Your task to perform on an android device: open chrome and create a bookmark for the current page Image 0: 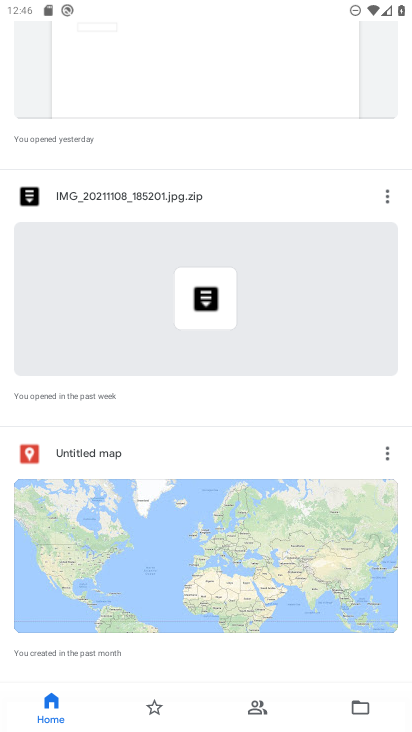
Step 0: drag from (176, 619) to (237, 232)
Your task to perform on an android device: open chrome and create a bookmark for the current page Image 1: 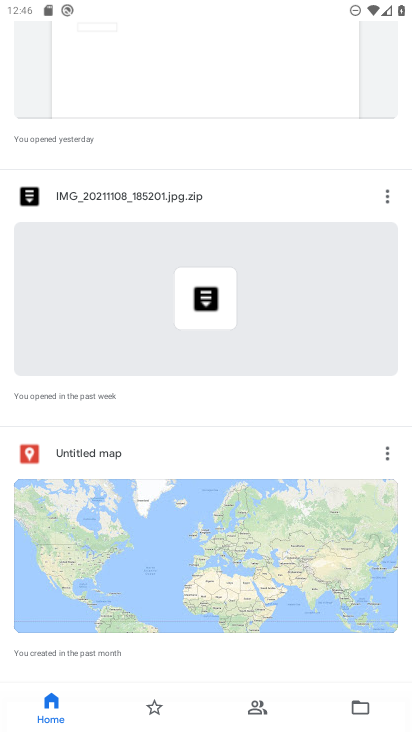
Step 1: drag from (262, 558) to (329, 196)
Your task to perform on an android device: open chrome and create a bookmark for the current page Image 2: 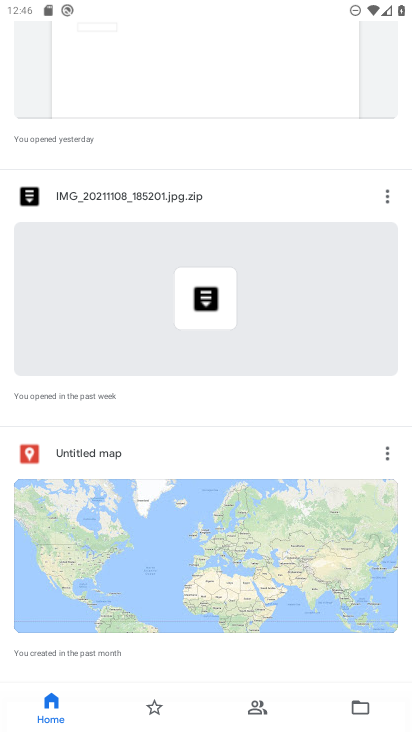
Step 2: press home button
Your task to perform on an android device: open chrome and create a bookmark for the current page Image 3: 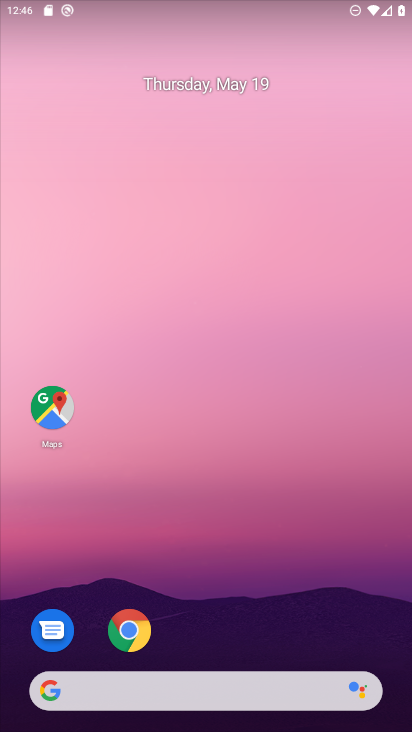
Step 3: click (119, 638)
Your task to perform on an android device: open chrome and create a bookmark for the current page Image 4: 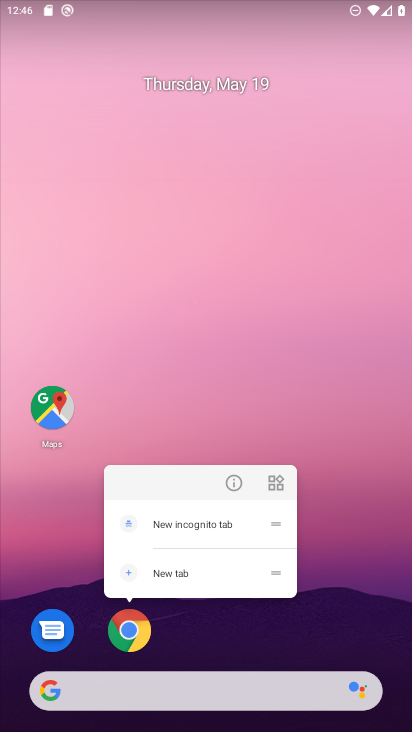
Step 4: click (221, 487)
Your task to perform on an android device: open chrome and create a bookmark for the current page Image 5: 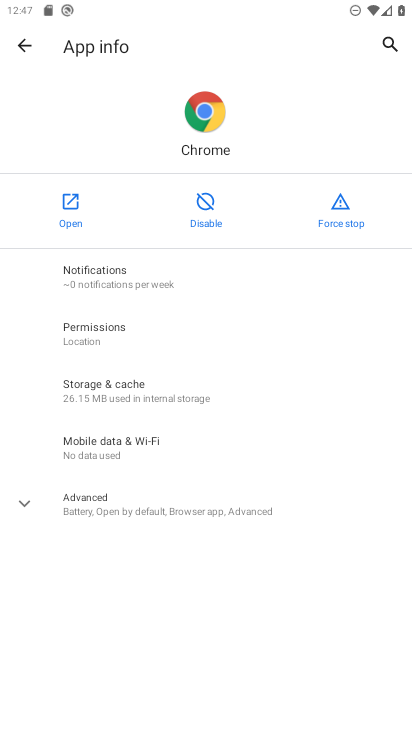
Step 5: click (77, 219)
Your task to perform on an android device: open chrome and create a bookmark for the current page Image 6: 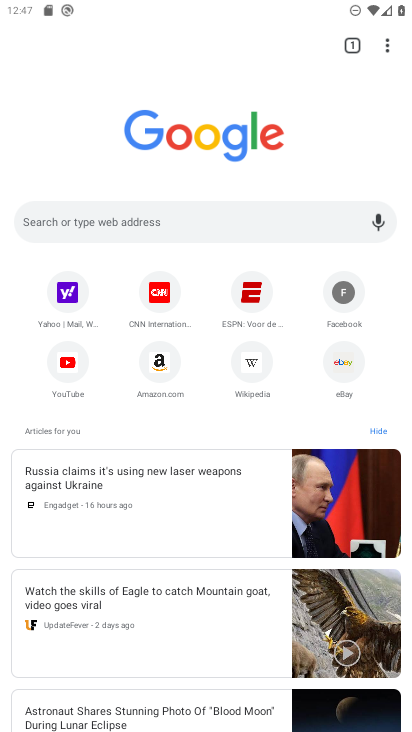
Step 6: click (376, 51)
Your task to perform on an android device: open chrome and create a bookmark for the current page Image 7: 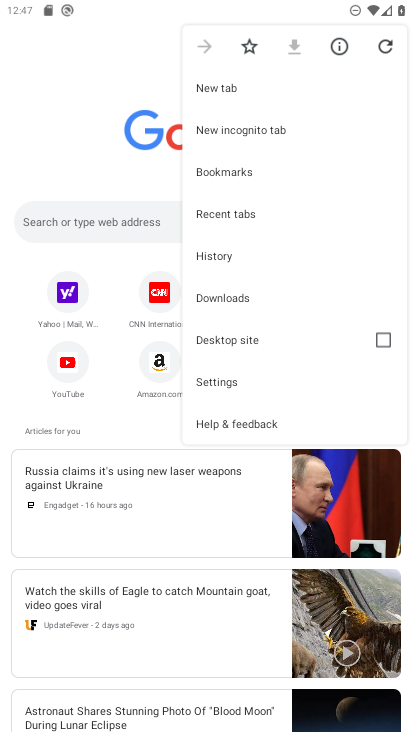
Step 7: click (252, 49)
Your task to perform on an android device: open chrome and create a bookmark for the current page Image 8: 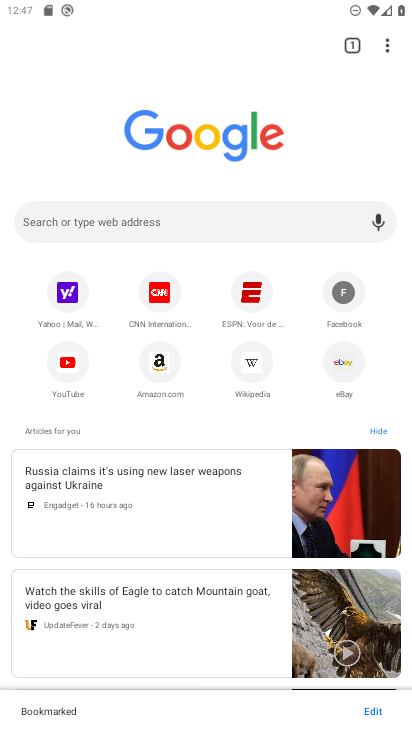
Step 8: task complete